Your task to perform on an android device: Show me popular games on the Play Store Image 0: 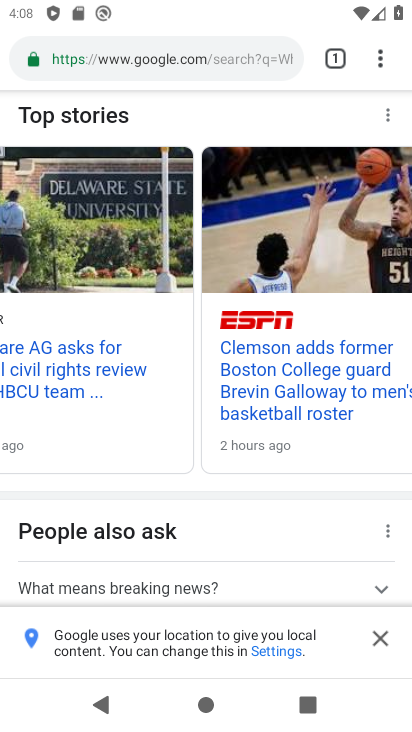
Step 0: press back button
Your task to perform on an android device: Show me popular games on the Play Store Image 1: 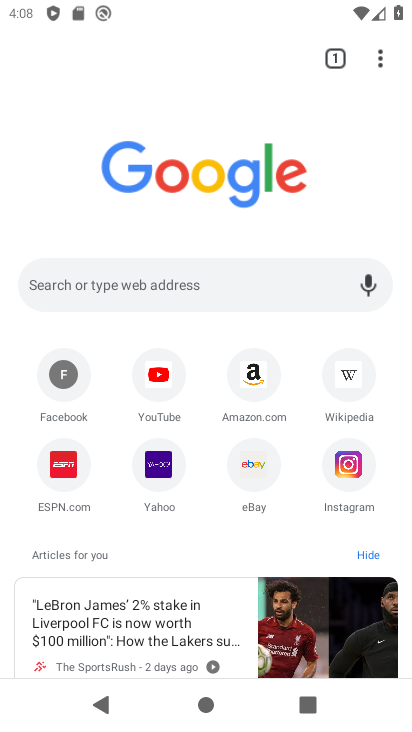
Step 1: press home button
Your task to perform on an android device: Show me popular games on the Play Store Image 2: 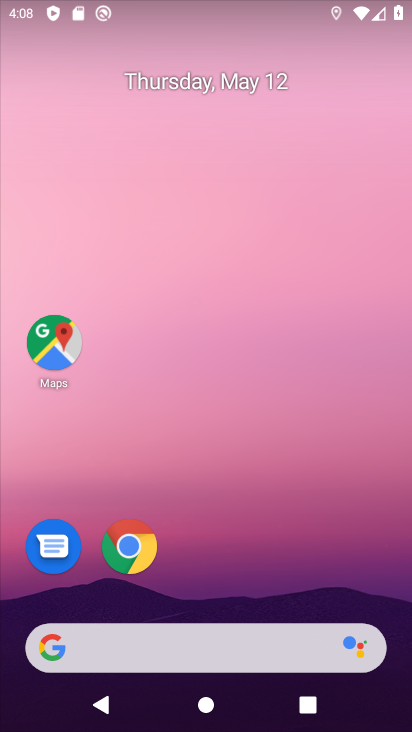
Step 2: drag from (203, 523) to (183, 8)
Your task to perform on an android device: Show me popular games on the Play Store Image 3: 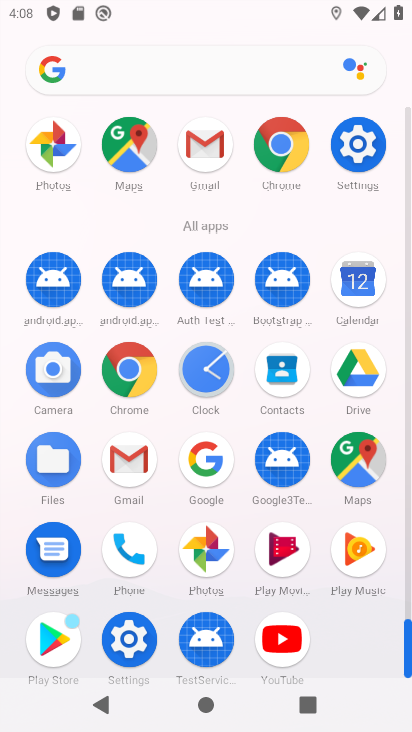
Step 3: drag from (3, 562) to (8, 226)
Your task to perform on an android device: Show me popular games on the Play Store Image 4: 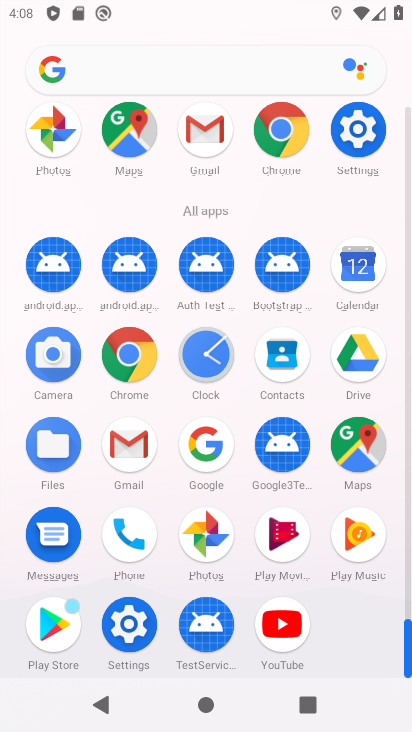
Step 4: click (51, 621)
Your task to perform on an android device: Show me popular games on the Play Store Image 5: 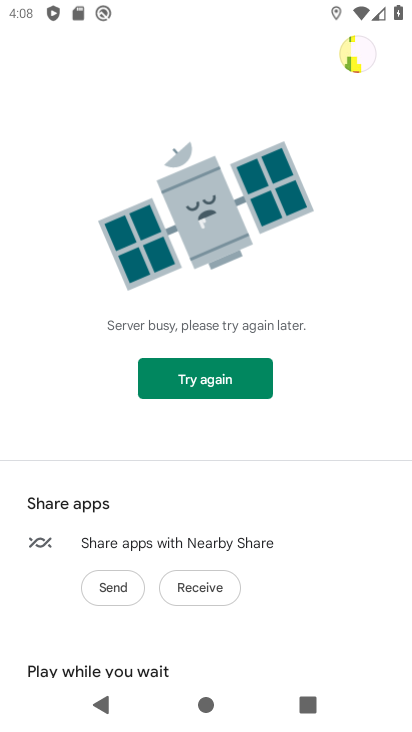
Step 5: click (188, 380)
Your task to perform on an android device: Show me popular games on the Play Store Image 6: 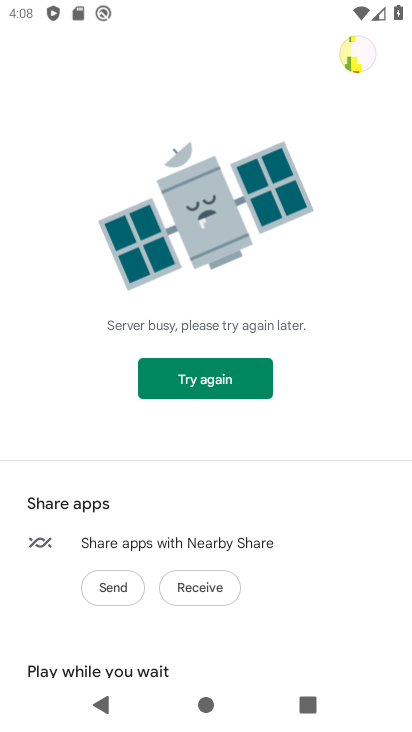
Step 6: click (215, 363)
Your task to perform on an android device: Show me popular games on the Play Store Image 7: 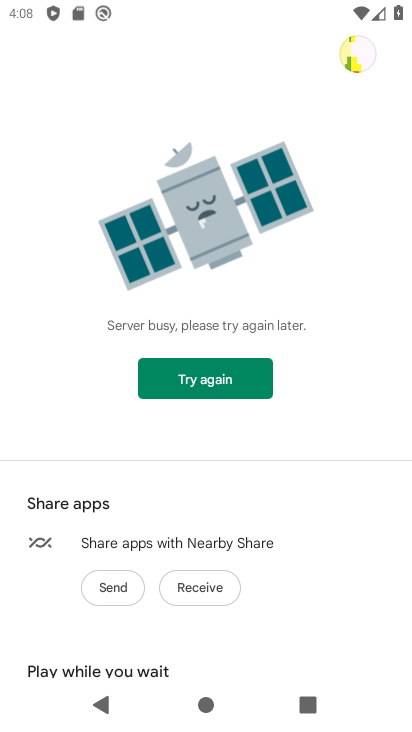
Step 7: task complete